Your task to perform on an android device: see tabs open on other devices in the chrome app Image 0: 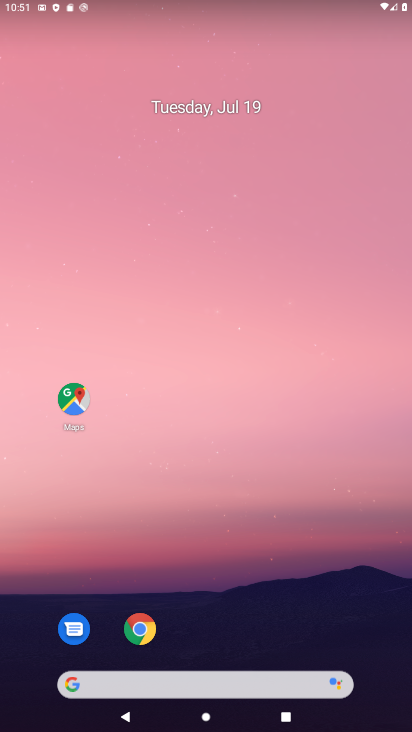
Step 0: press home button
Your task to perform on an android device: see tabs open on other devices in the chrome app Image 1: 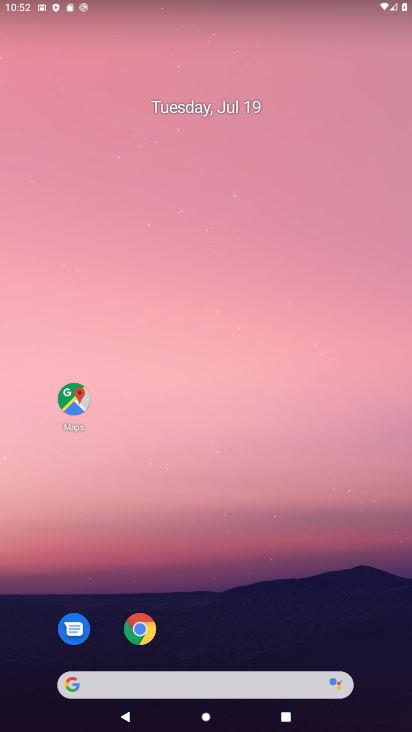
Step 1: click (135, 627)
Your task to perform on an android device: see tabs open on other devices in the chrome app Image 2: 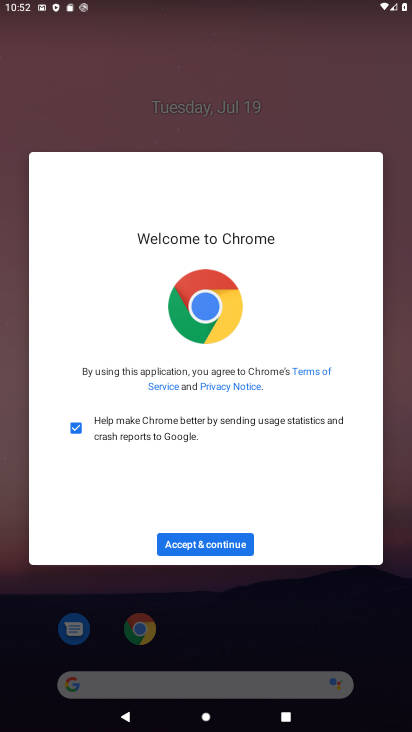
Step 2: click (205, 535)
Your task to perform on an android device: see tabs open on other devices in the chrome app Image 3: 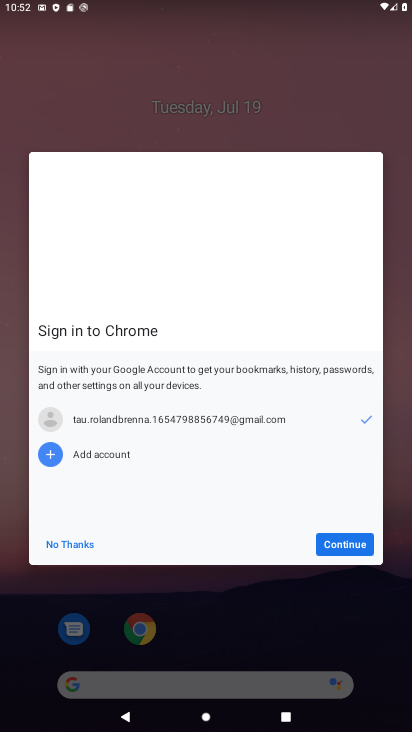
Step 3: click (347, 539)
Your task to perform on an android device: see tabs open on other devices in the chrome app Image 4: 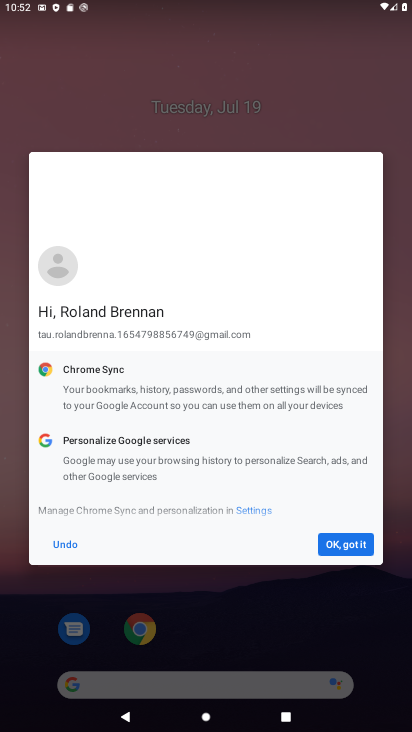
Step 4: click (338, 549)
Your task to perform on an android device: see tabs open on other devices in the chrome app Image 5: 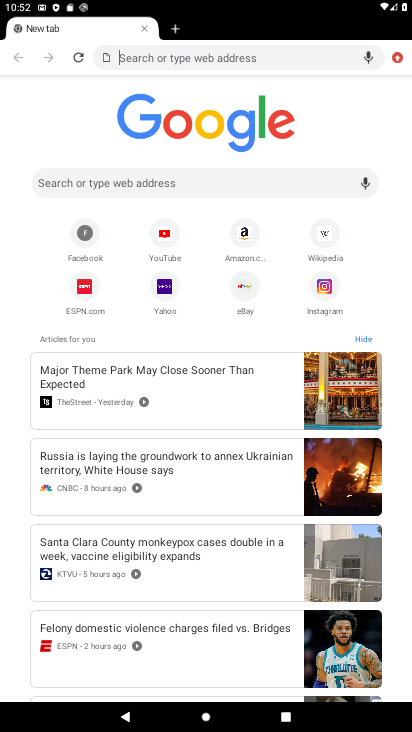
Step 5: click (396, 50)
Your task to perform on an android device: see tabs open on other devices in the chrome app Image 6: 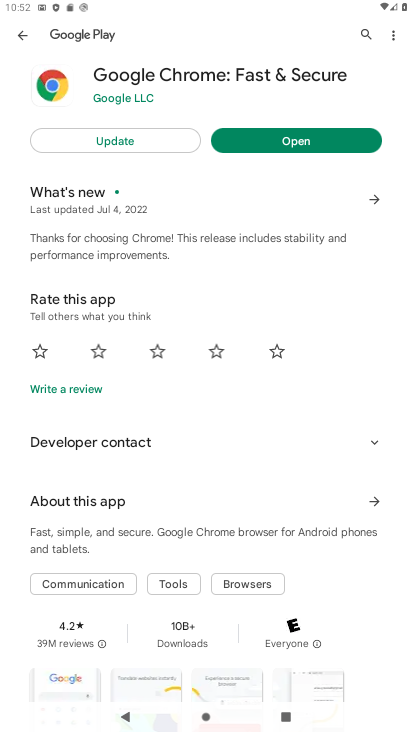
Step 6: press back button
Your task to perform on an android device: see tabs open on other devices in the chrome app Image 7: 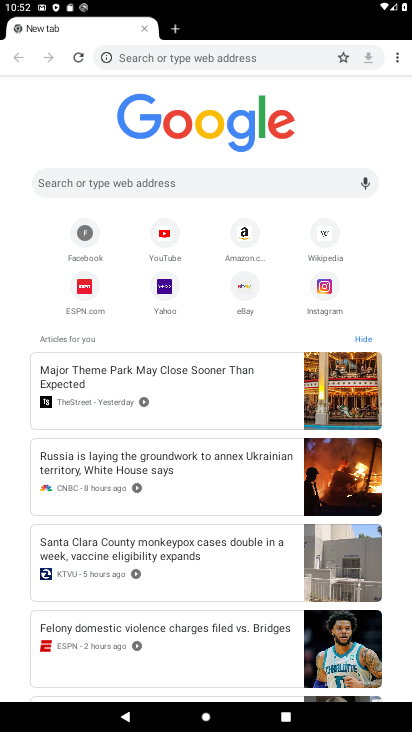
Step 7: click (398, 58)
Your task to perform on an android device: see tabs open on other devices in the chrome app Image 8: 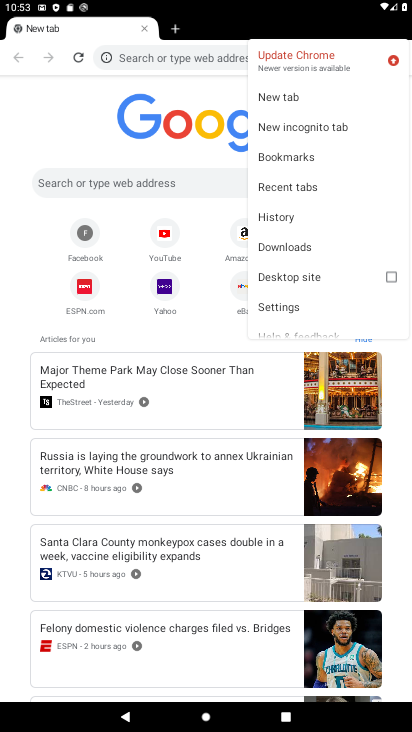
Step 8: click (317, 177)
Your task to perform on an android device: see tabs open on other devices in the chrome app Image 9: 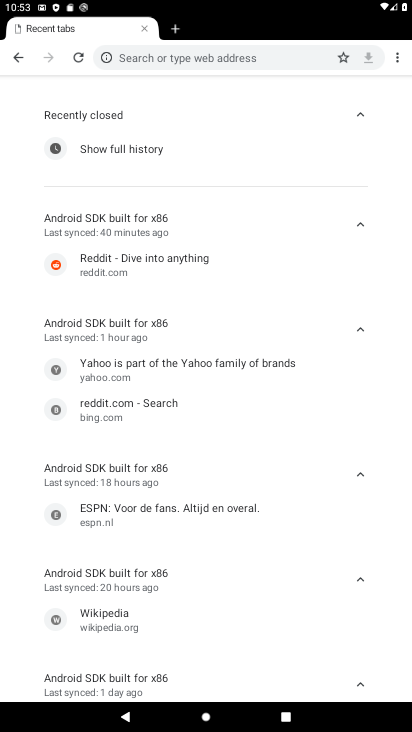
Step 9: task complete